Your task to perform on an android device: toggle wifi Image 0: 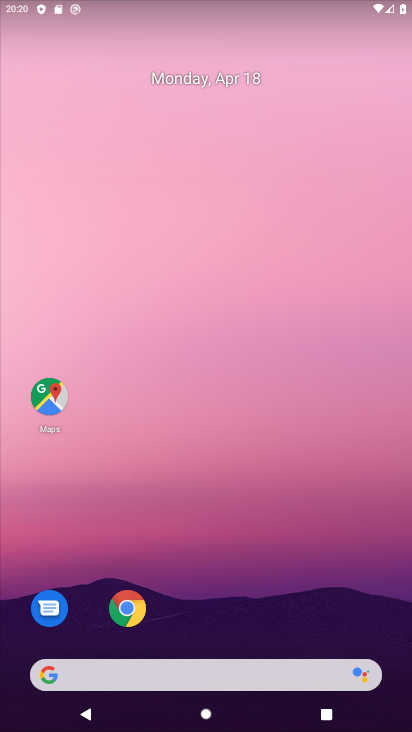
Step 0: drag from (248, 475) to (224, 132)
Your task to perform on an android device: toggle wifi Image 1: 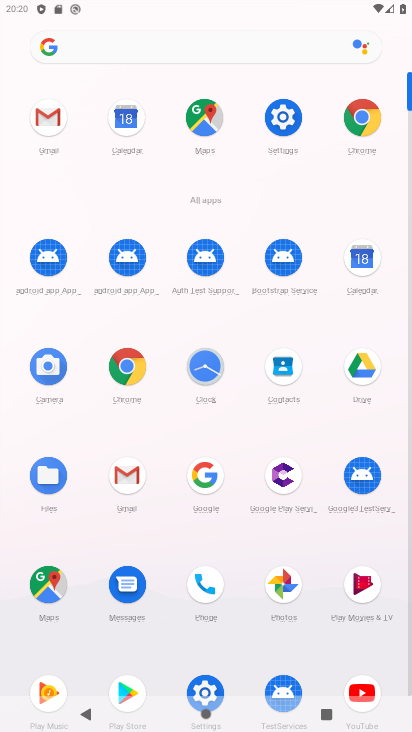
Step 1: click (281, 117)
Your task to perform on an android device: toggle wifi Image 2: 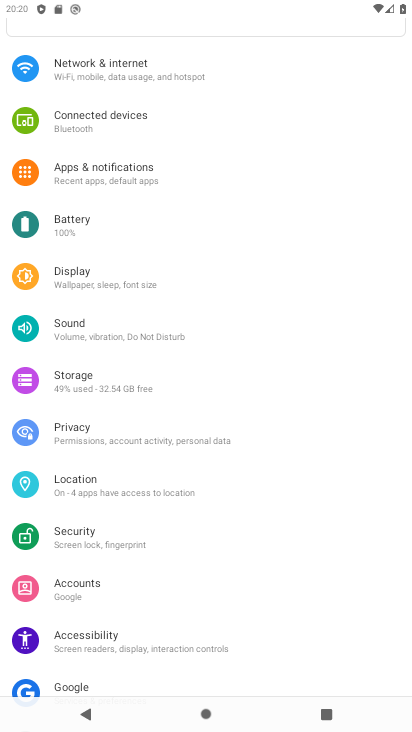
Step 2: click (128, 72)
Your task to perform on an android device: toggle wifi Image 3: 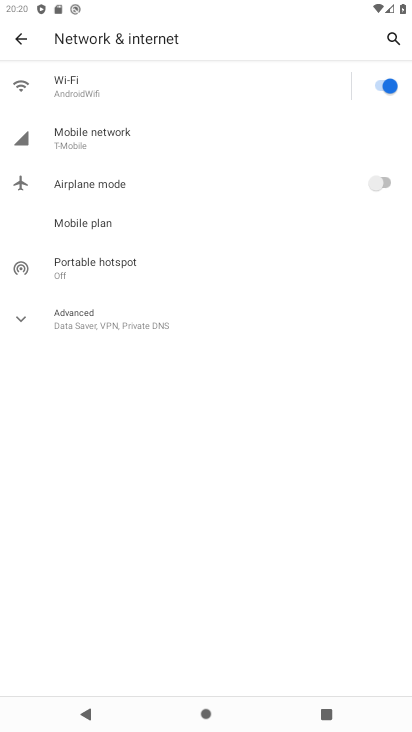
Step 3: click (392, 83)
Your task to perform on an android device: toggle wifi Image 4: 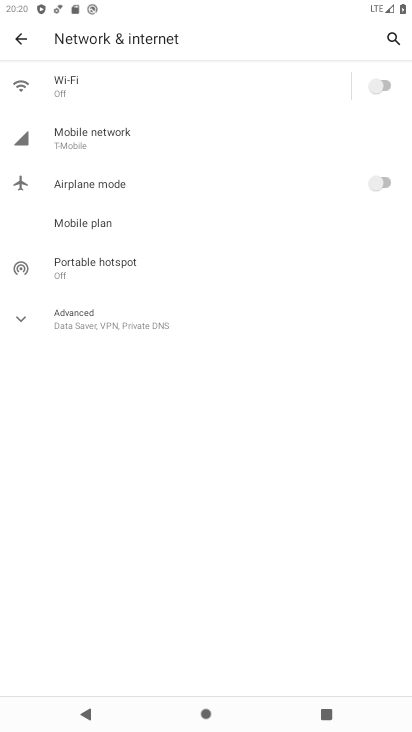
Step 4: task complete